Your task to perform on an android device: Check the news Image 0: 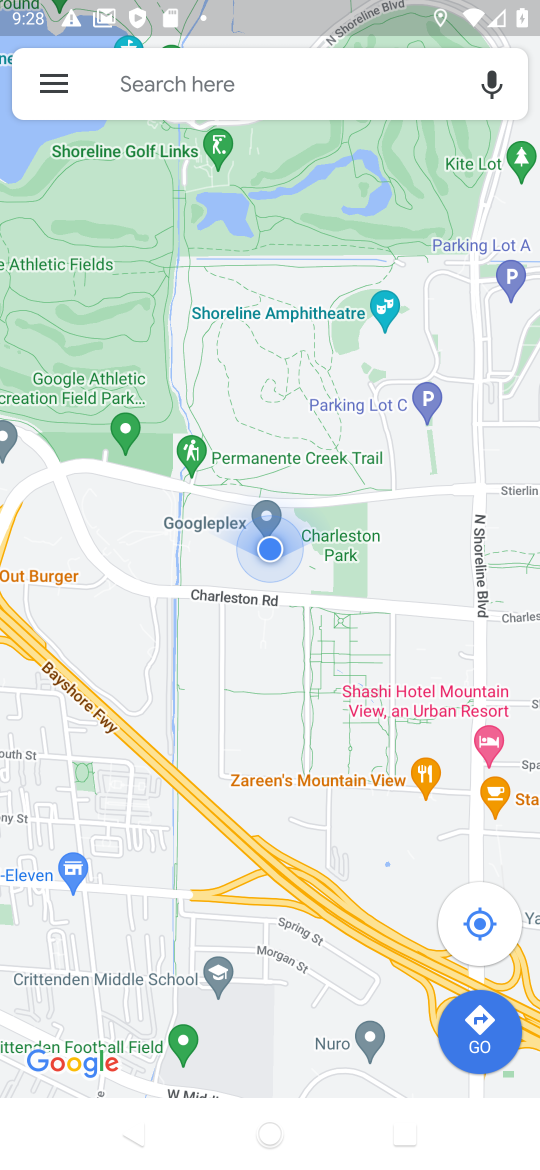
Step 0: press home button
Your task to perform on an android device: Check the news Image 1: 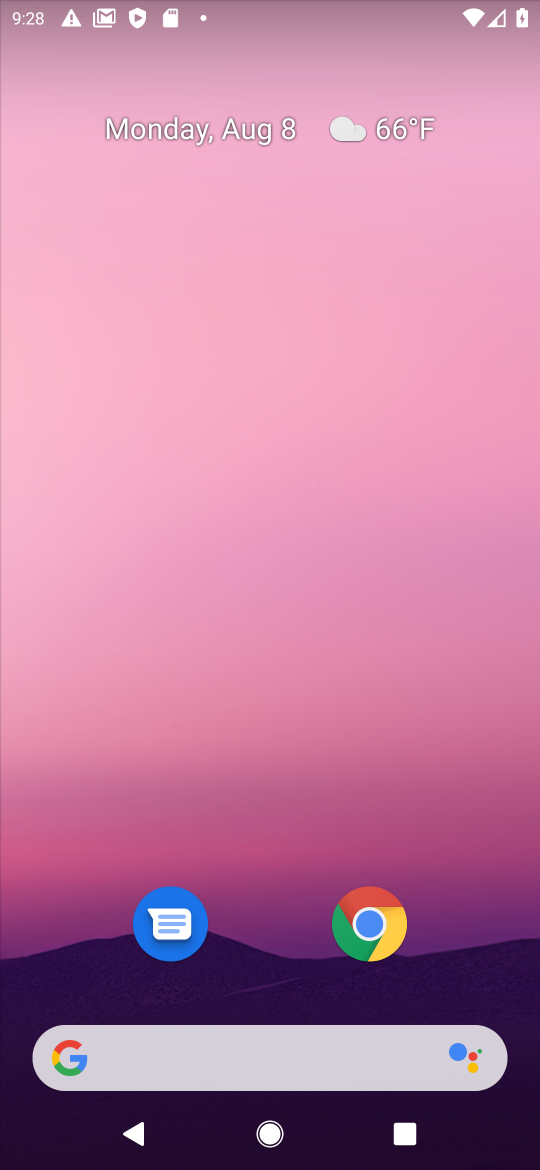
Step 1: drag from (264, 947) to (310, 54)
Your task to perform on an android device: Check the news Image 2: 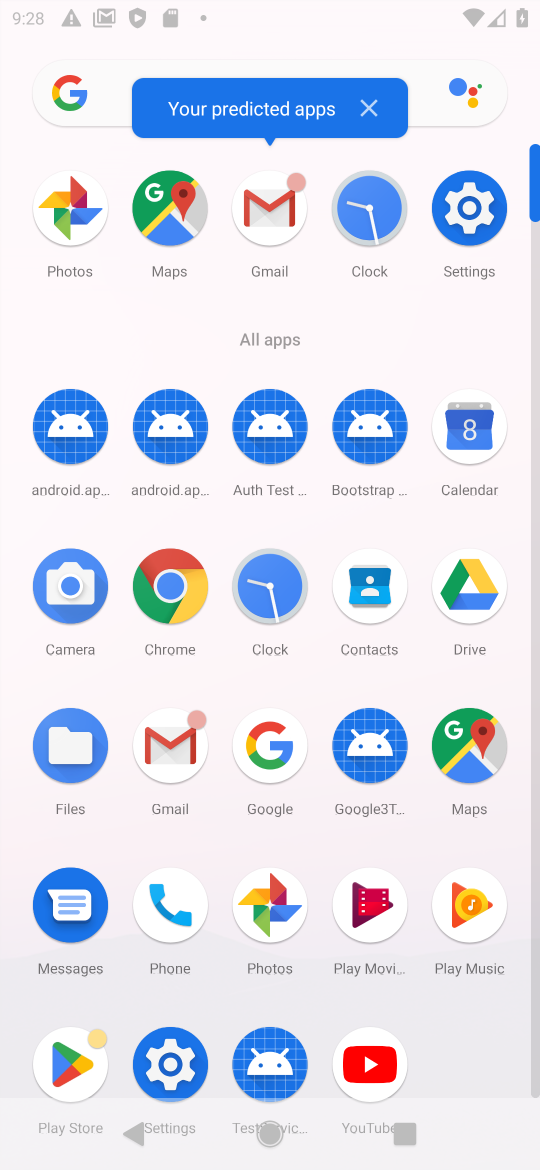
Step 2: click (144, 589)
Your task to perform on an android device: Check the news Image 3: 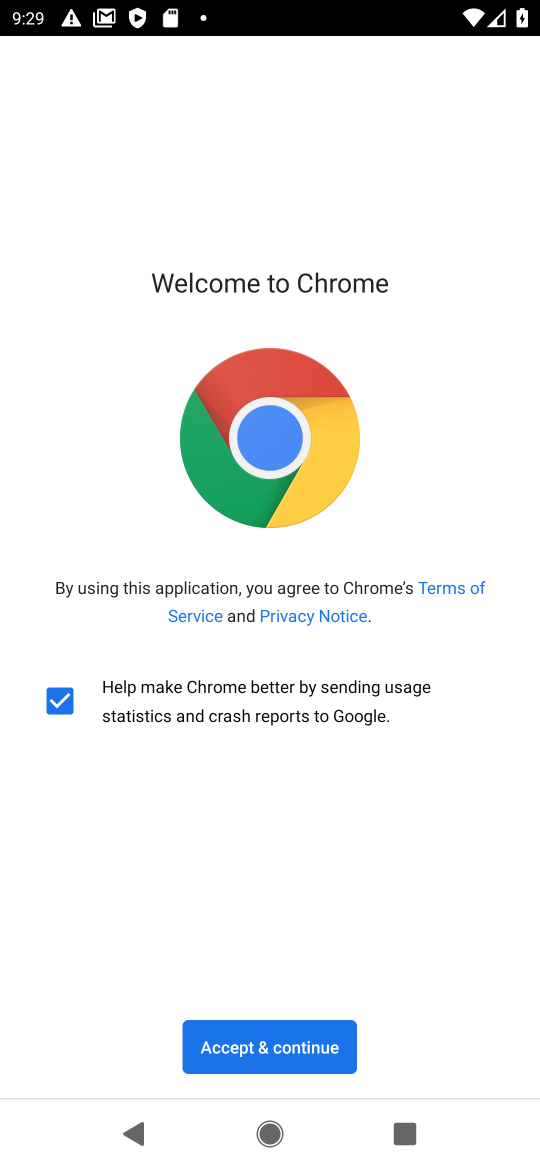
Step 3: click (310, 1027)
Your task to perform on an android device: Check the news Image 4: 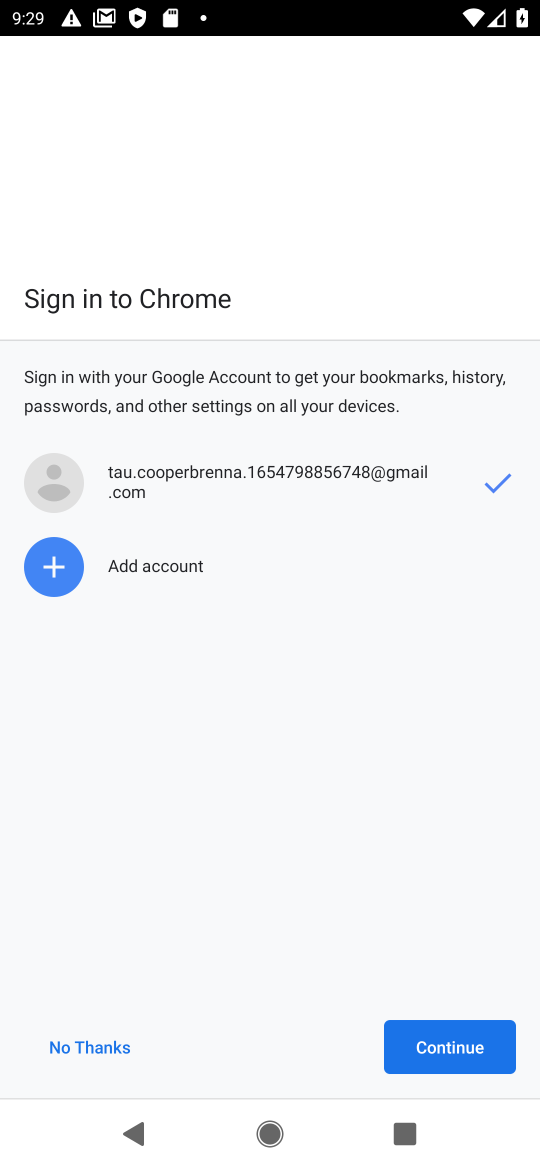
Step 4: click (432, 1050)
Your task to perform on an android device: Check the news Image 5: 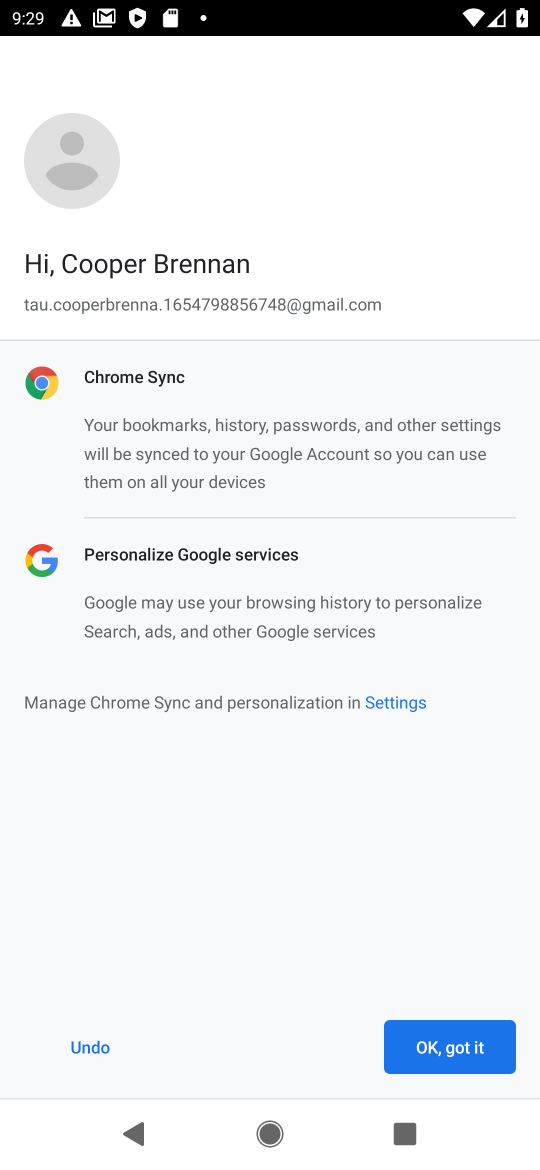
Step 5: click (435, 1042)
Your task to perform on an android device: Check the news Image 6: 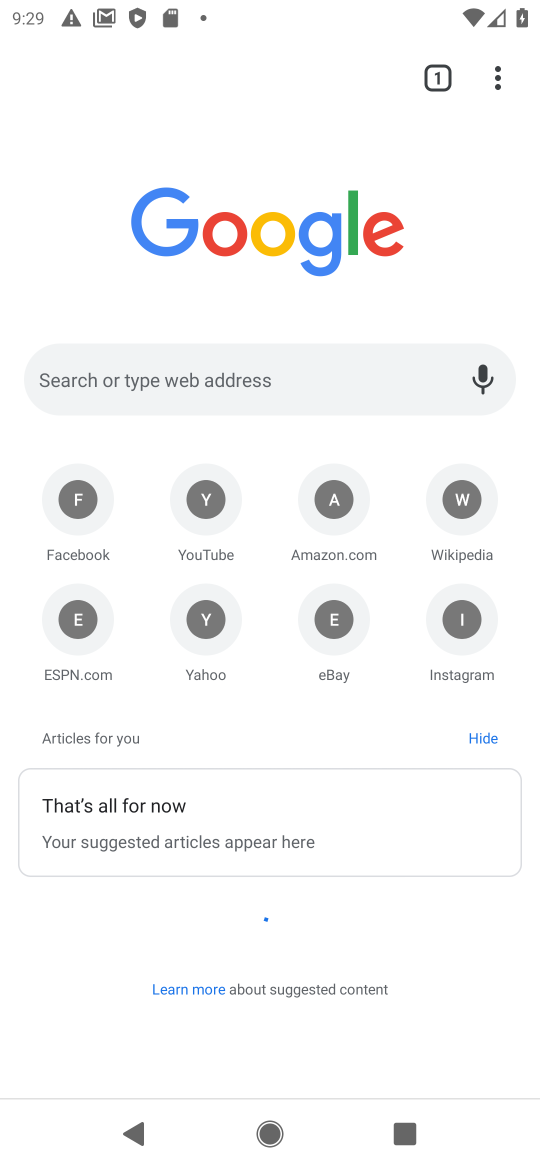
Step 6: click (239, 350)
Your task to perform on an android device: Check the news Image 7: 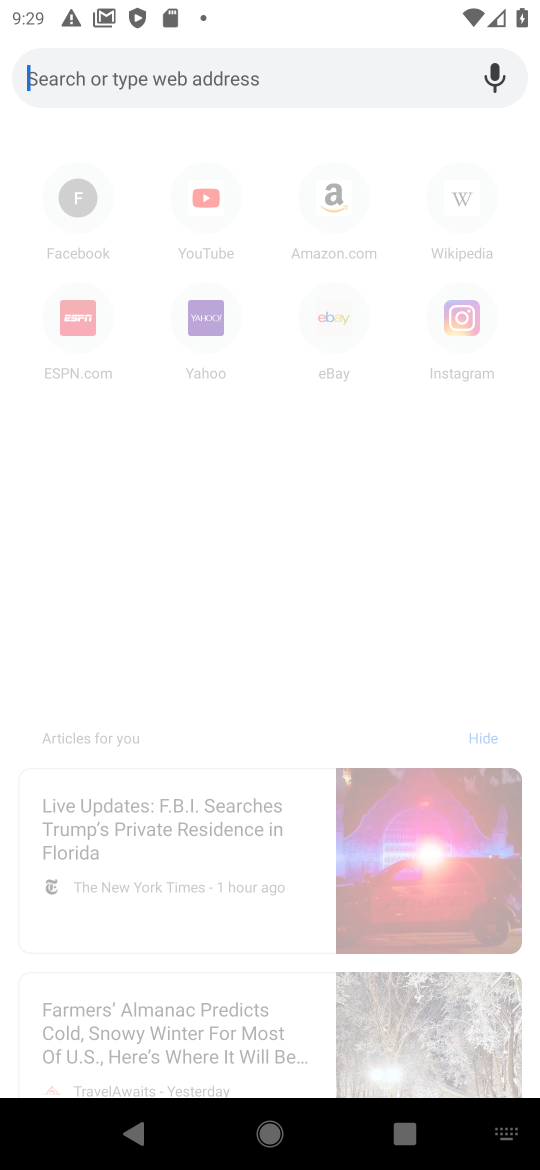
Step 7: type "Check the news"
Your task to perform on an android device: Check the news Image 8: 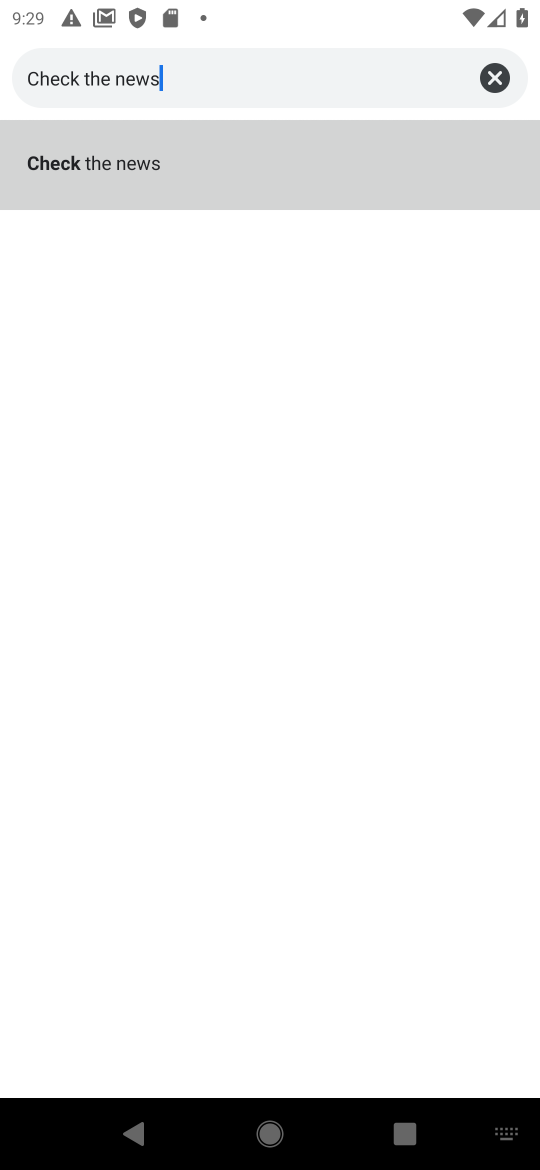
Step 8: click (109, 160)
Your task to perform on an android device: Check the news Image 9: 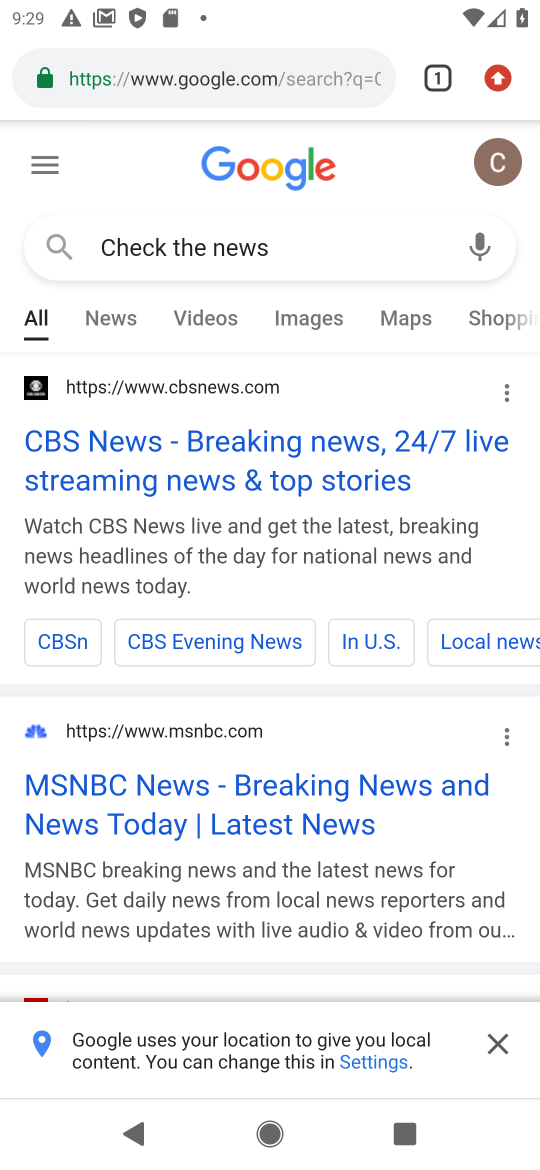
Step 9: click (316, 319)
Your task to perform on an android device: Check the news Image 10: 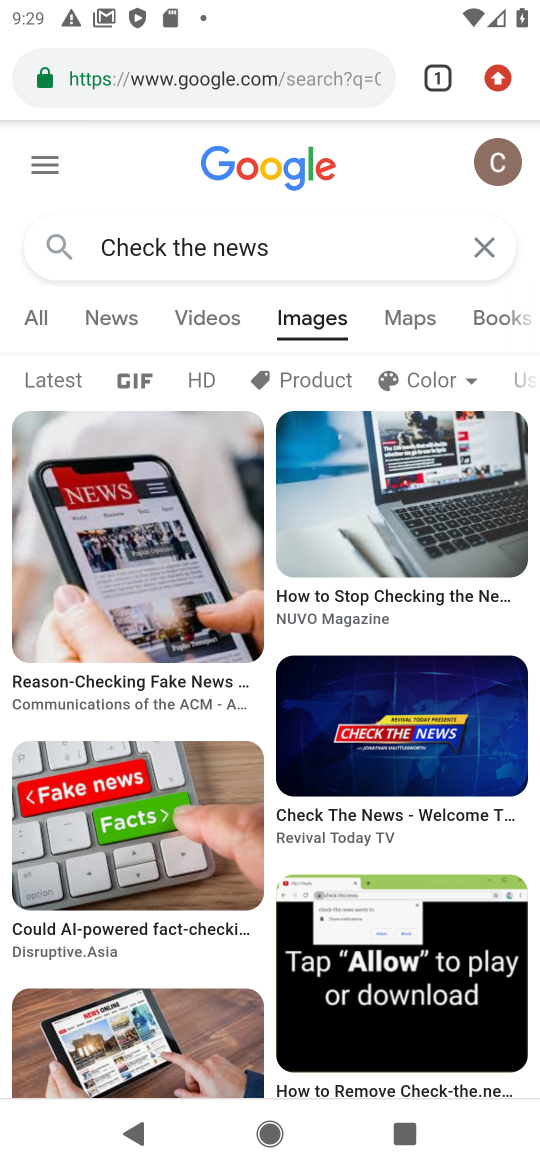
Step 10: click (98, 317)
Your task to perform on an android device: Check the news Image 11: 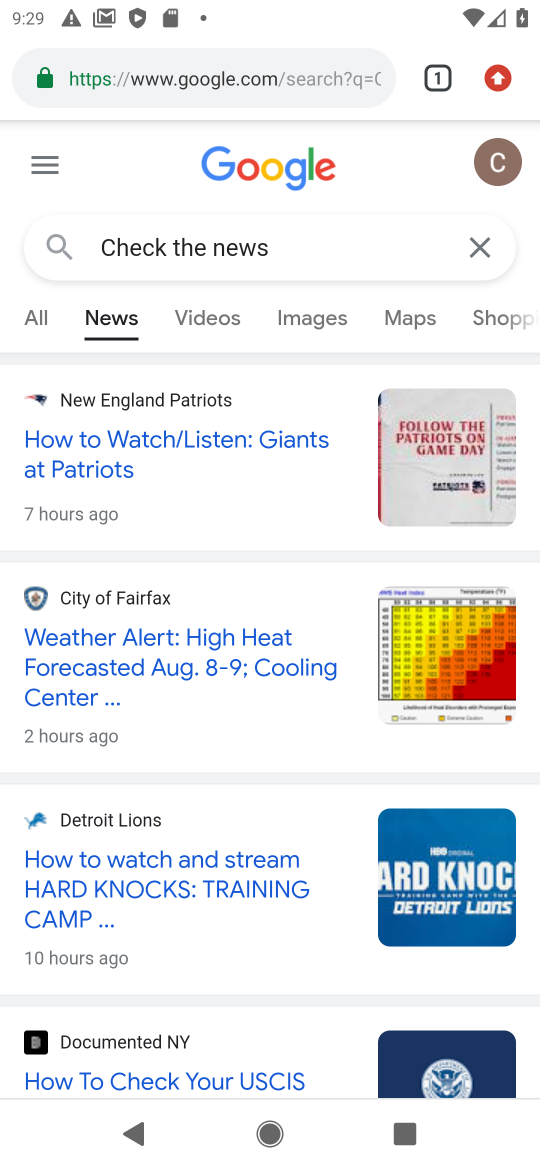
Step 11: task complete